Your task to perform on an android device: turn off data saver in the chrome app Image 0: 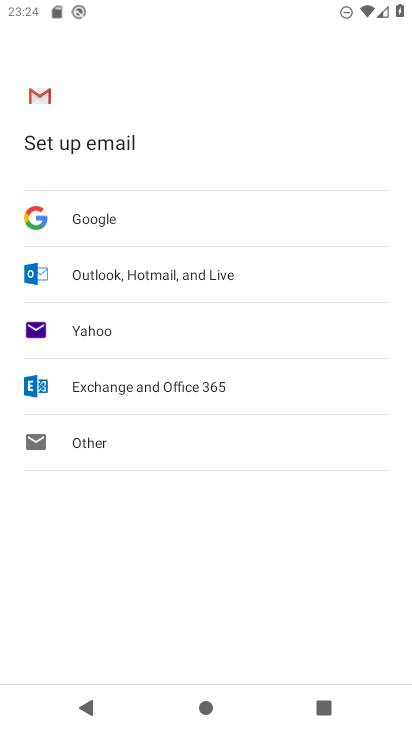
Step 0: press home button
Your task to perform on an android device: turn off data saver in the chrome app Image 1: 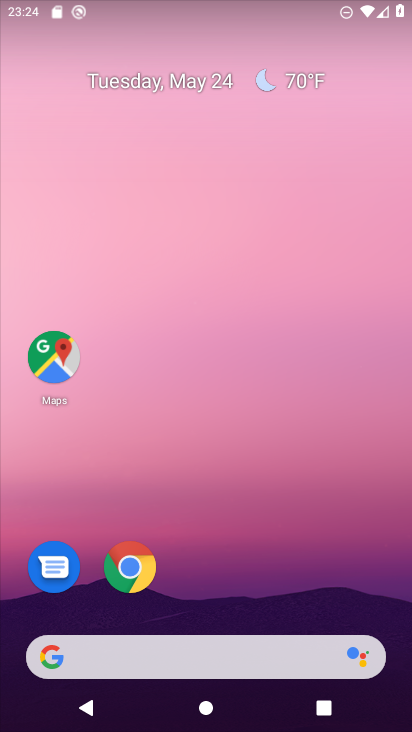
Step 1: click (132, 566)
Your task to perform on an android device: turn off data saver in the chrome app Image 2: 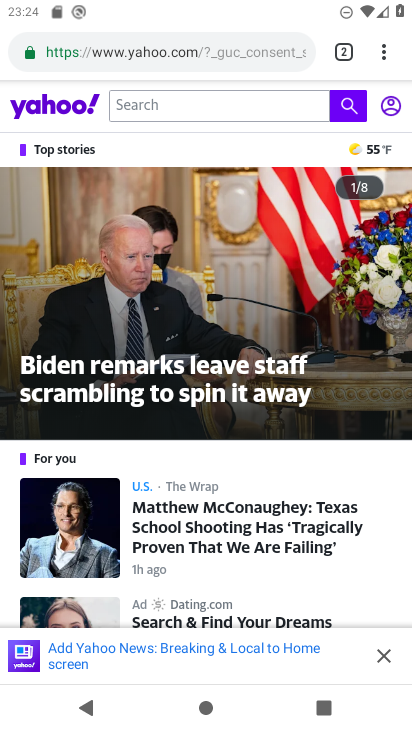
Step 2: click (384, 54)
Your task to perform on an android device: turn off data saver in the chrome app Image 3: 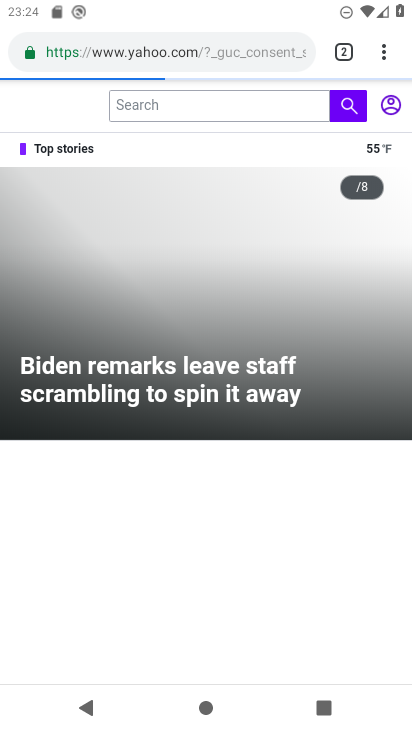
Step 3: click (374, 49)
Your task to perform on an android device: turn off data saver in the chrome app Image 4: 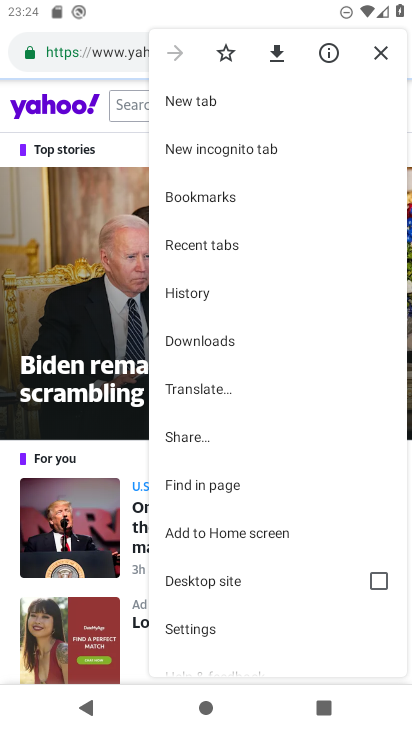
Step 4: click (226, 624)
Your task to perform on an android device: turn off data saver in the chrome app Image 5: 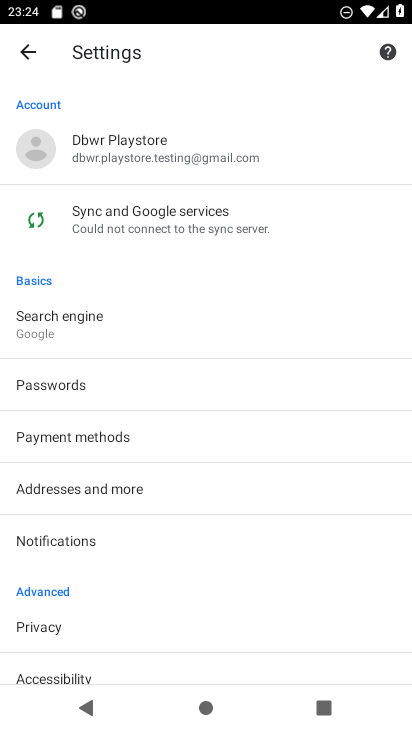
Step 5: drag from (131, 637) to (151, 232)
Your task to perform on an android device: turn off data saver in the chrome app Image 6: 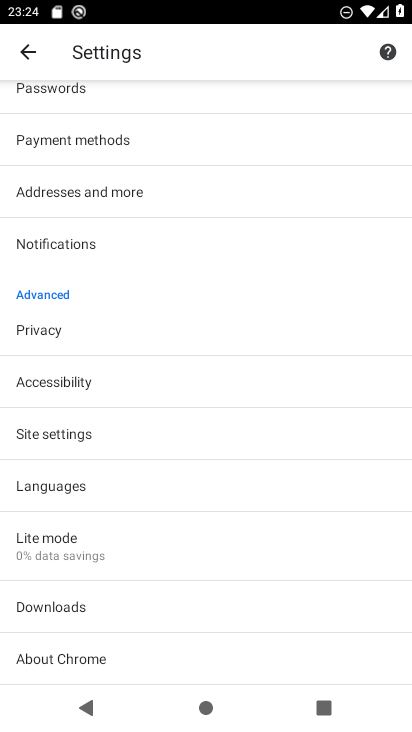
Step 6: click (68, 548)
Your task to perform on an android device: turn off data saver in the chrome app Image 7: 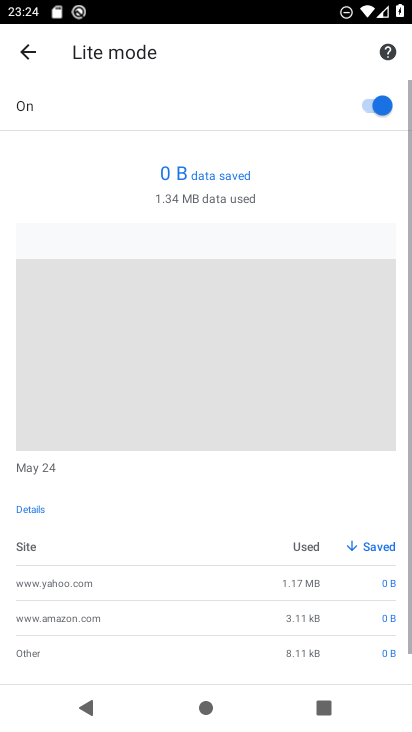
Step 7: click (378, 112)
Your task to perform on an android device: turn off data saver in the chrome app Image 8: 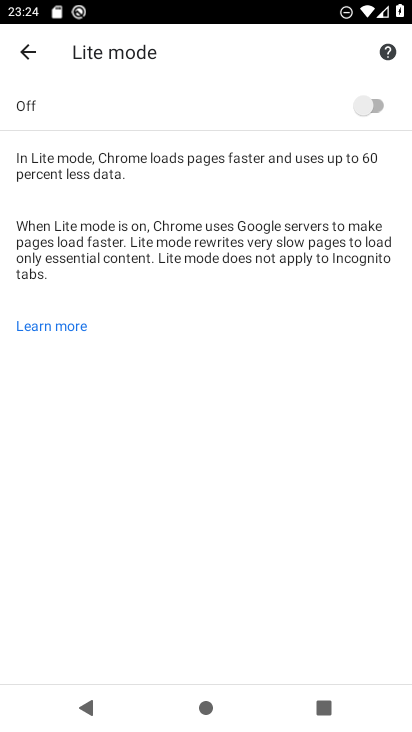
Step 8: task complete